Your task to perform on an android device: add a contact in the contacts app Image 0: 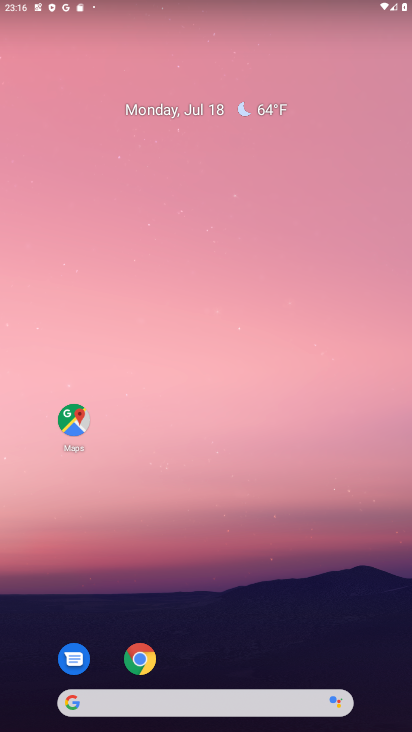
Step 0: press home button
Your task to perform on an android device: add a contact in the contacts app Image 1: 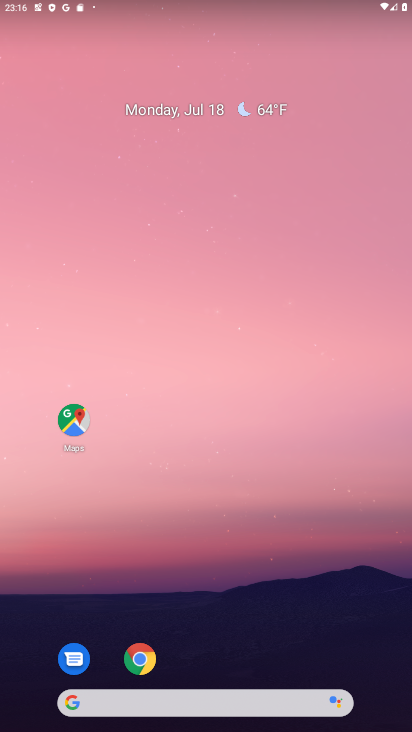
Step 1: drag from (308, 625) to (301, 92)
Your task to perform on an android device: add a contact in the contacts app Image 2: 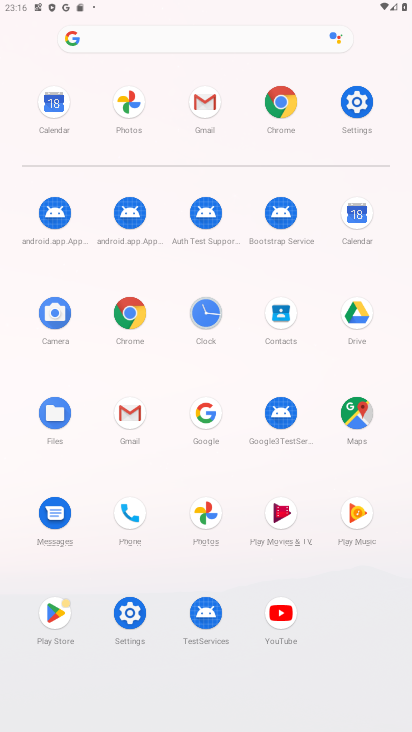
Step 2: click (282, 306)
Your task to perform on an android device: add a contact in the contacts app Image 3: 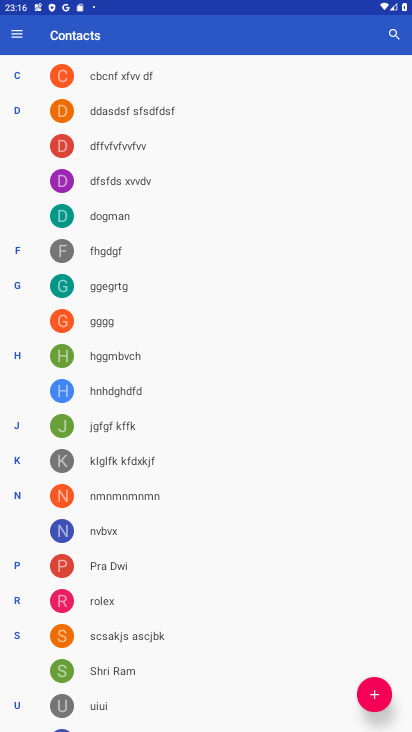
Step 3: click (361, 702)
Your task to perform on an android device: add a contact in the contacts app Image 4: 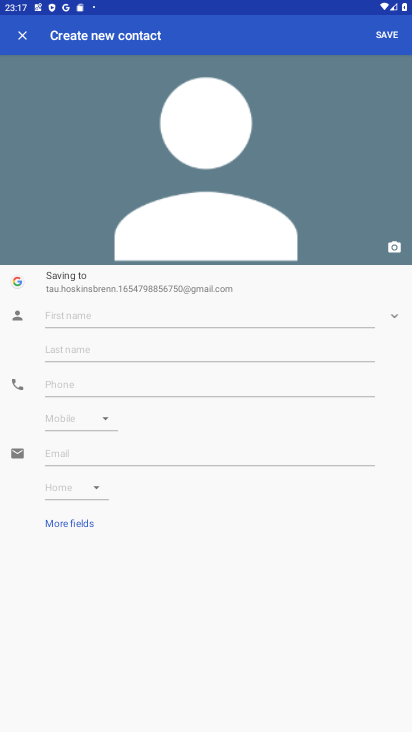
Step 4: click (207, 327)
Your task to perform on an android device: add a contact in the contacts app Image 5: 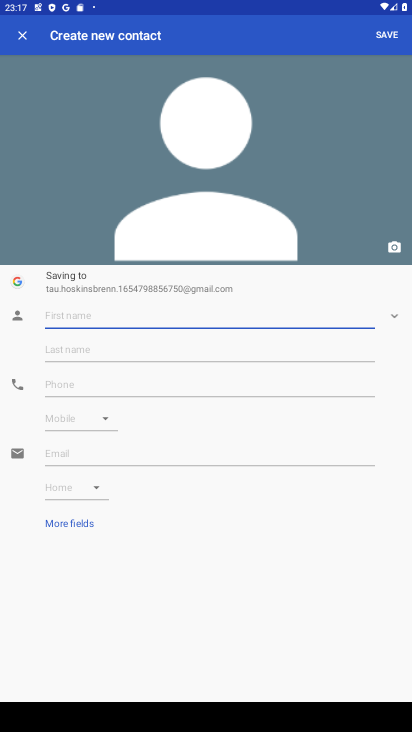
Step 5: type "xjhds"
Your task to perform on an android device: add a contact in the contacts app Image 6: 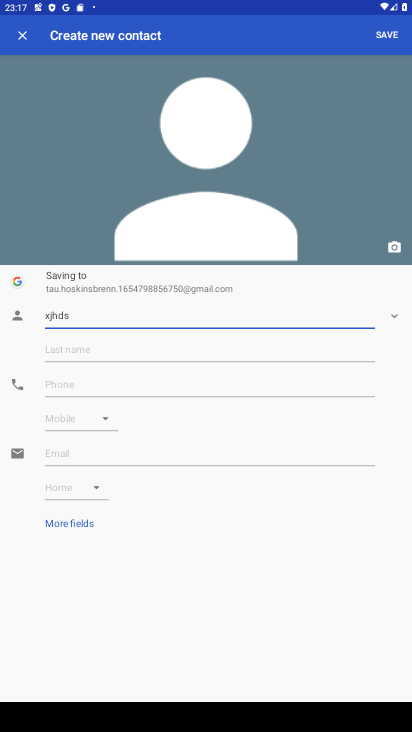
Step 6: click (146, 378)
Your task to perform on an android device: add a contact in the contacts app Image 7: 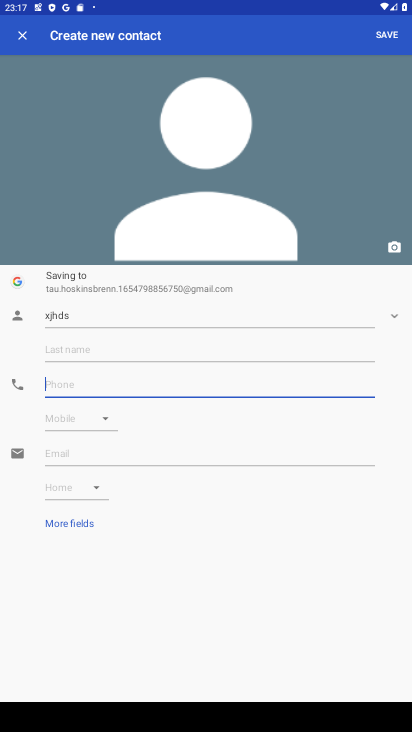
Step 7: type "4702"
Your task to perform on an android device: add a contact in the contacts app Image 8: 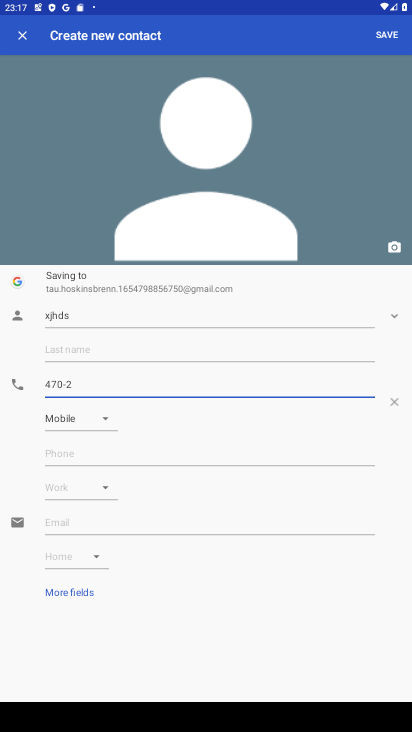
Step 8: click (387, 30)
Your task to perform on an android device: add a contact in the contacts app Image 9: 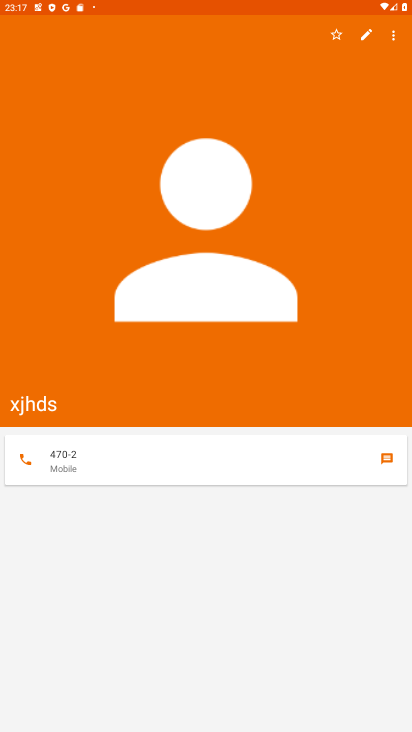
Step 9: task complete